Your task to perform on an android device: Open ESPN.com Image 0: 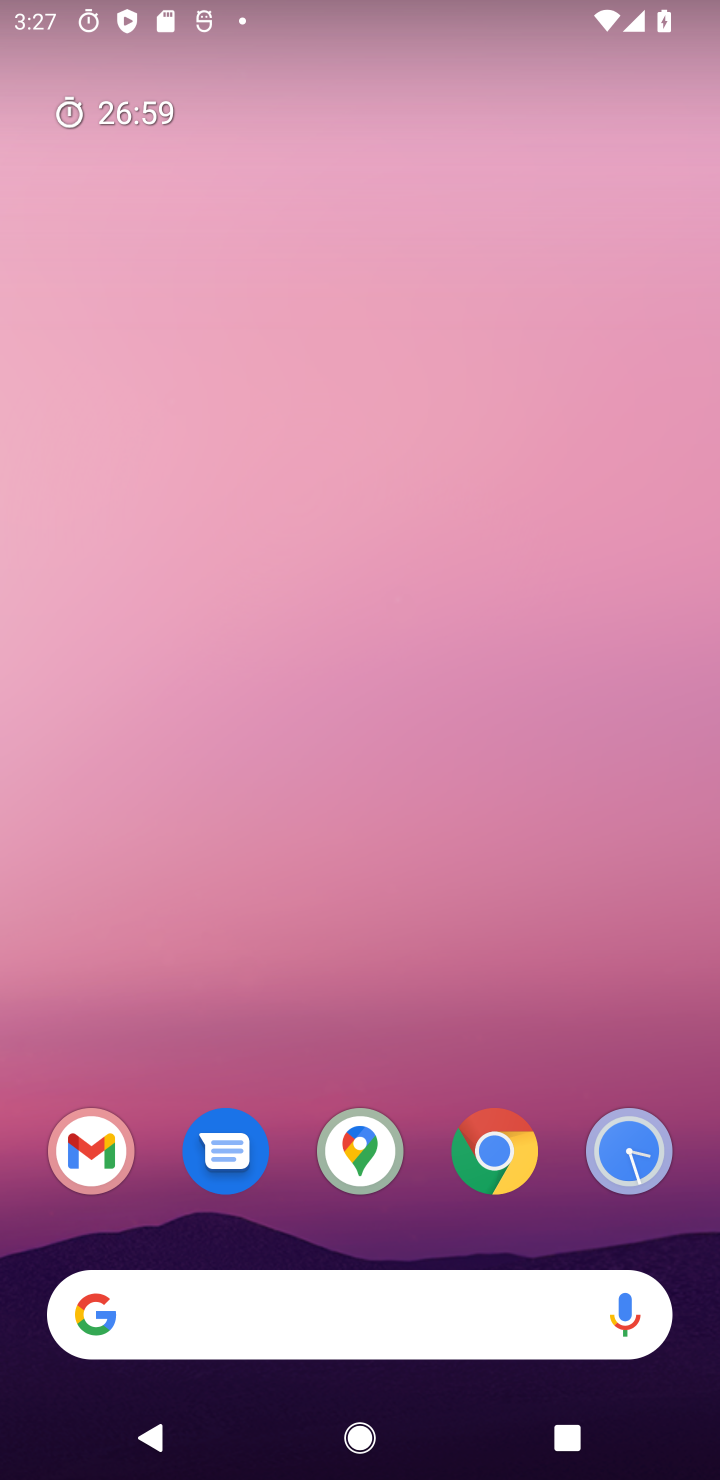
Step 0: click (470, 1146)
Your task to perform on an android device: Open ESPN.com Image 1: 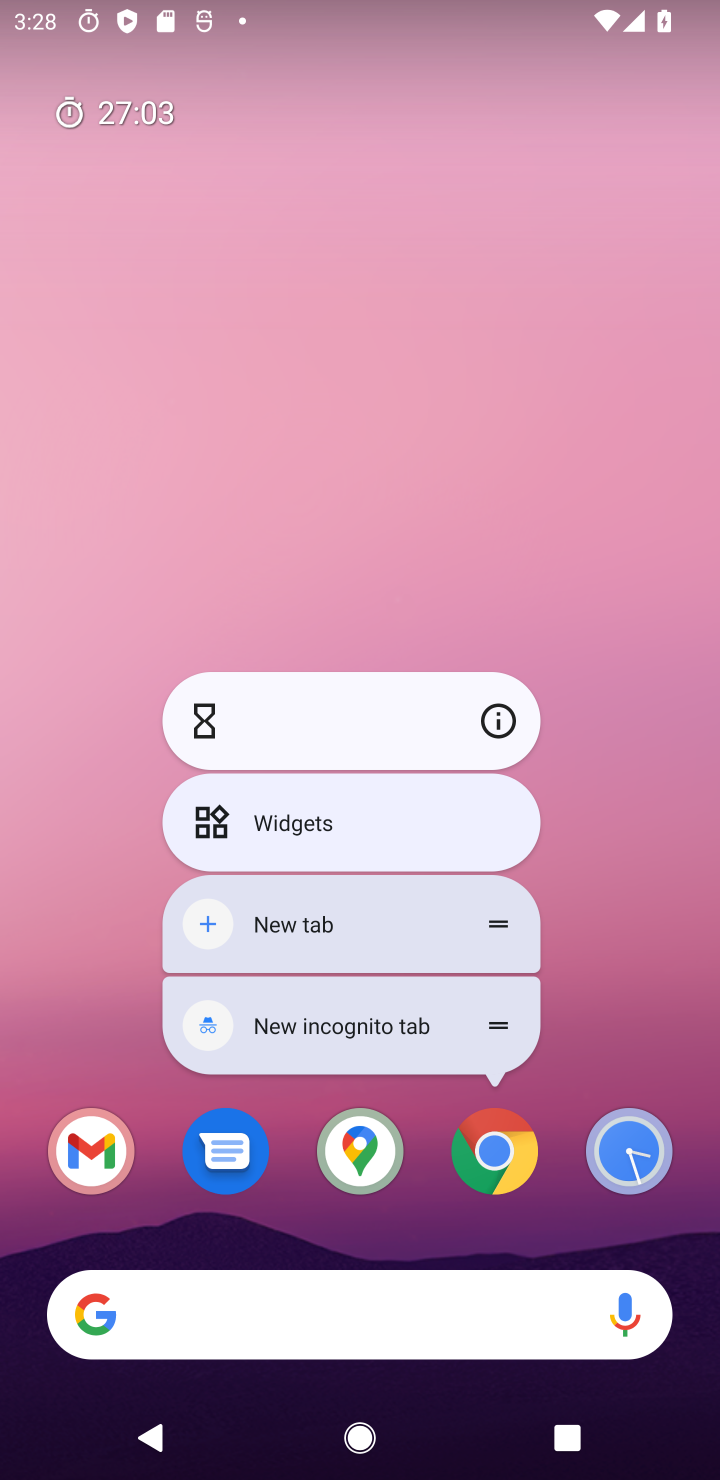
Step 1: click (485, 1170)
Your task to perform on an android device: Open ESPN.com Image 2: 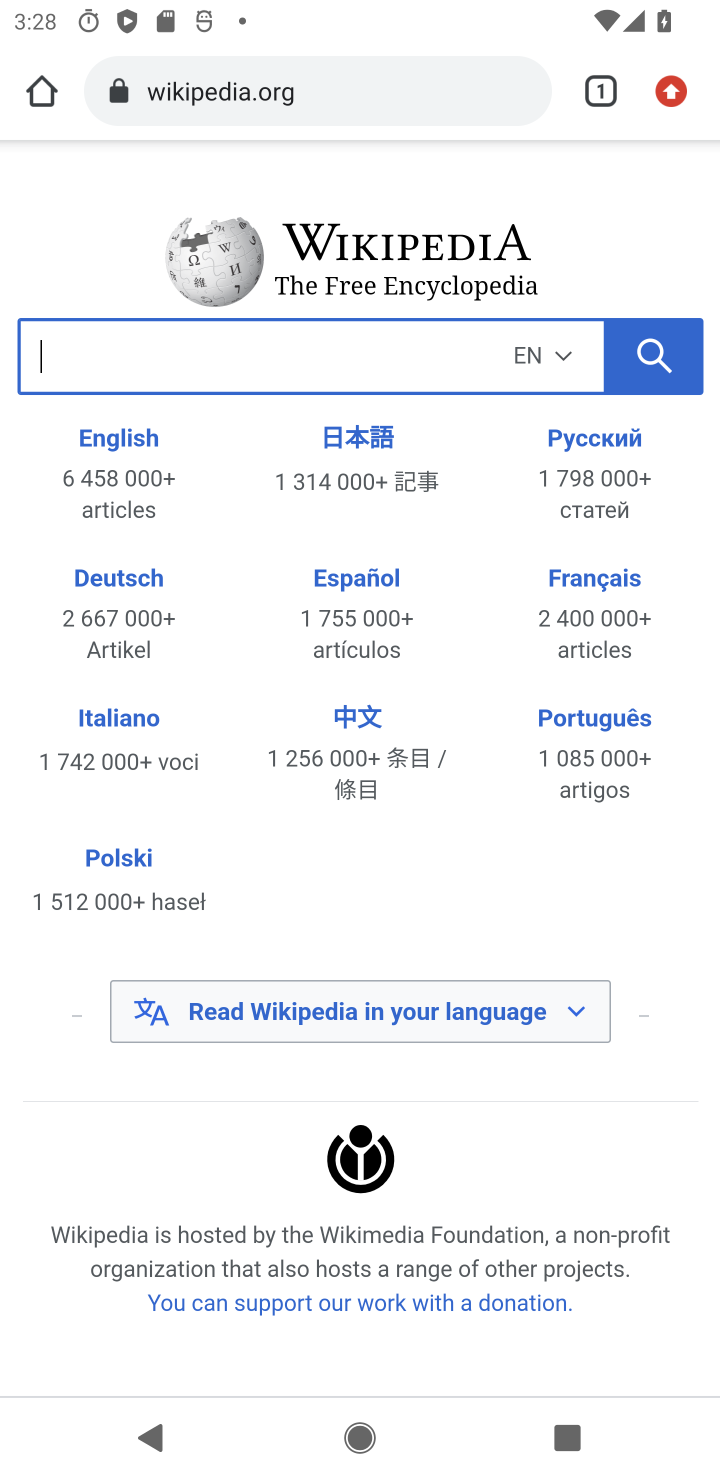
Step 2: click (256, 89)
Your task to perform on an android device: Open ESPN.com Image 3: 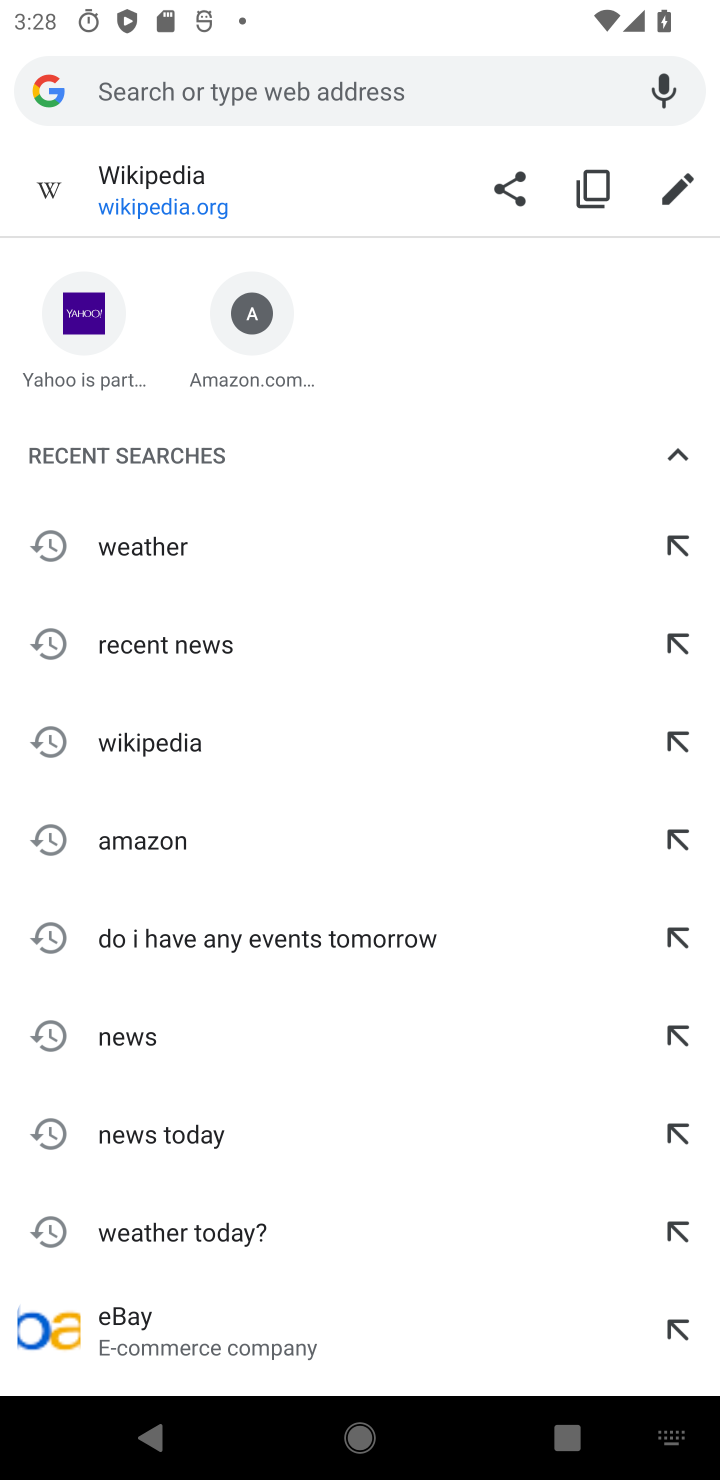
Step 3: type "ESPN.com"
Your task to perform on an android device: Open ESPN.com Image 4: 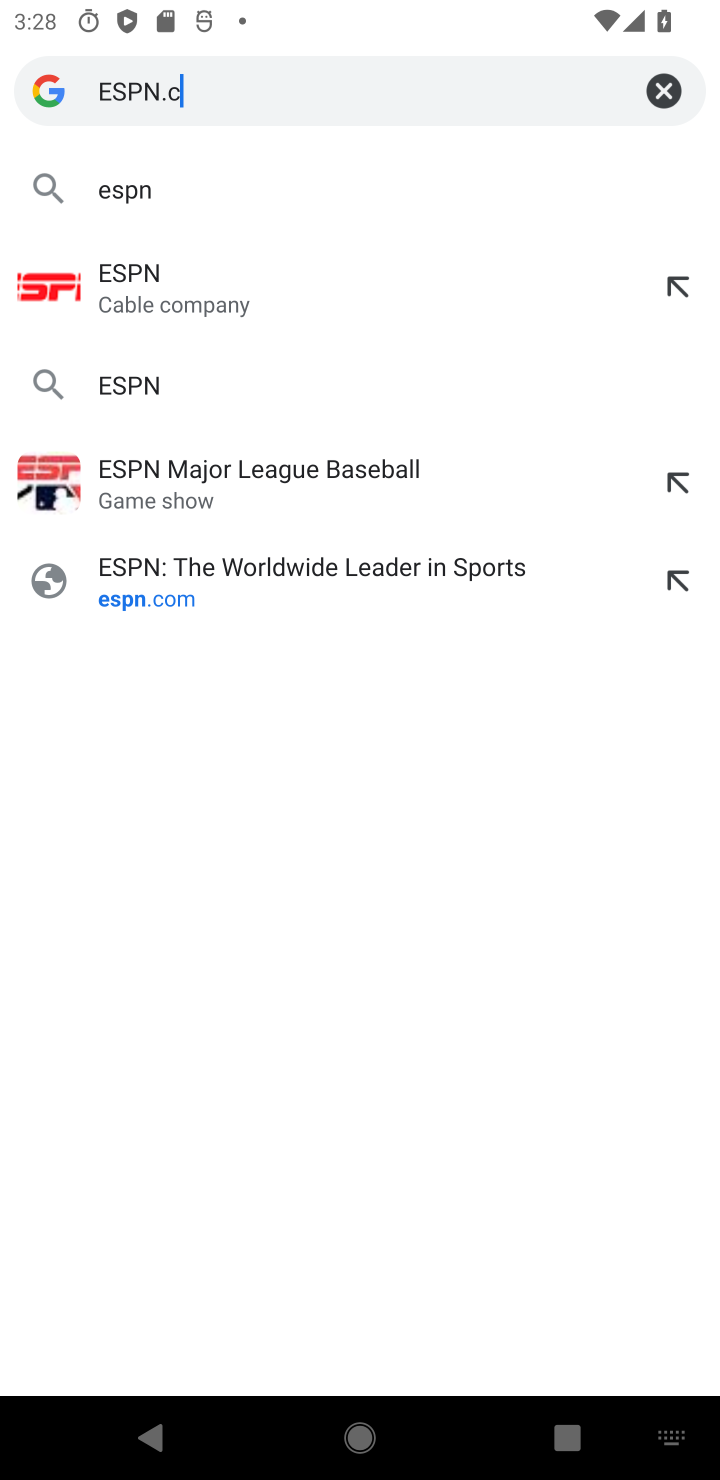
Step 4: type ""
Your task to perform on an android device: Open ESPN.com Image 5: 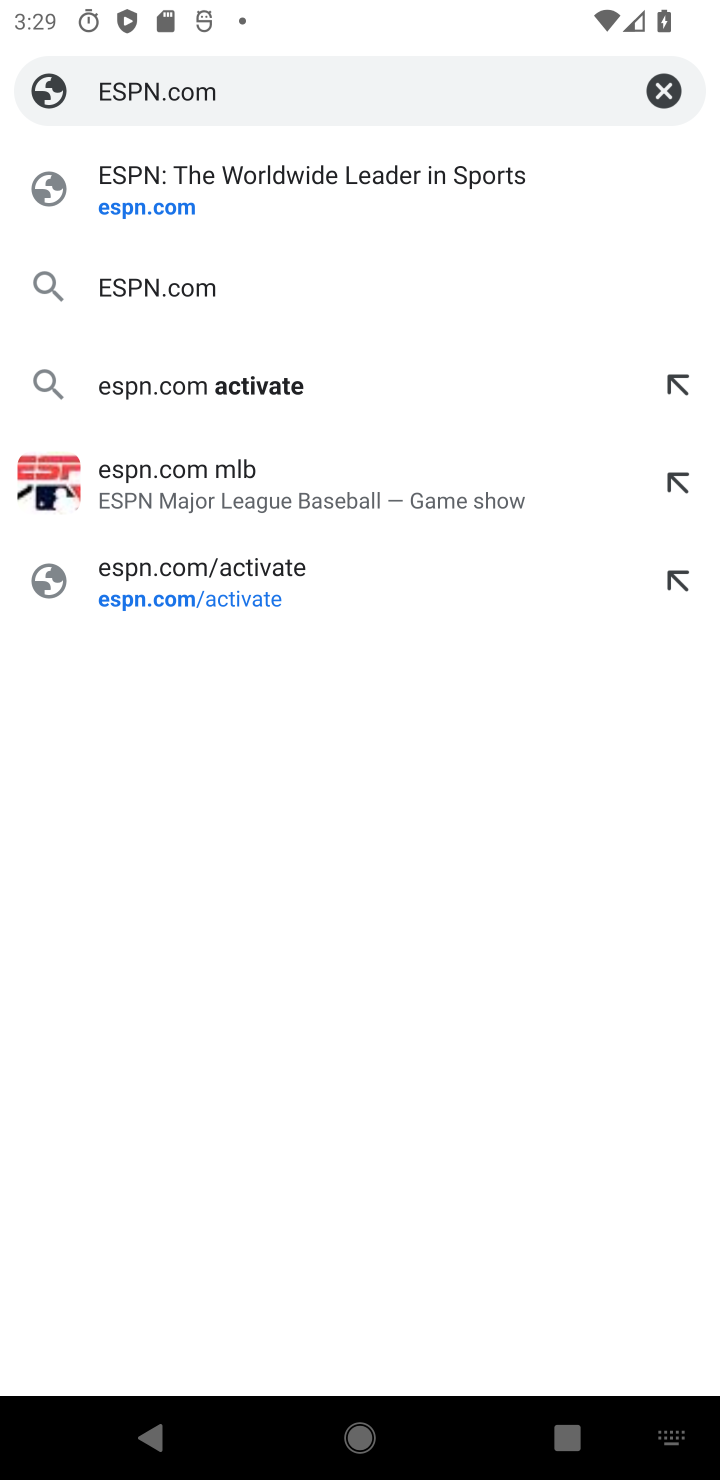
Step 5: click (257, 196)
Your task to perform on an android device: Open ESPN.com Image 6: 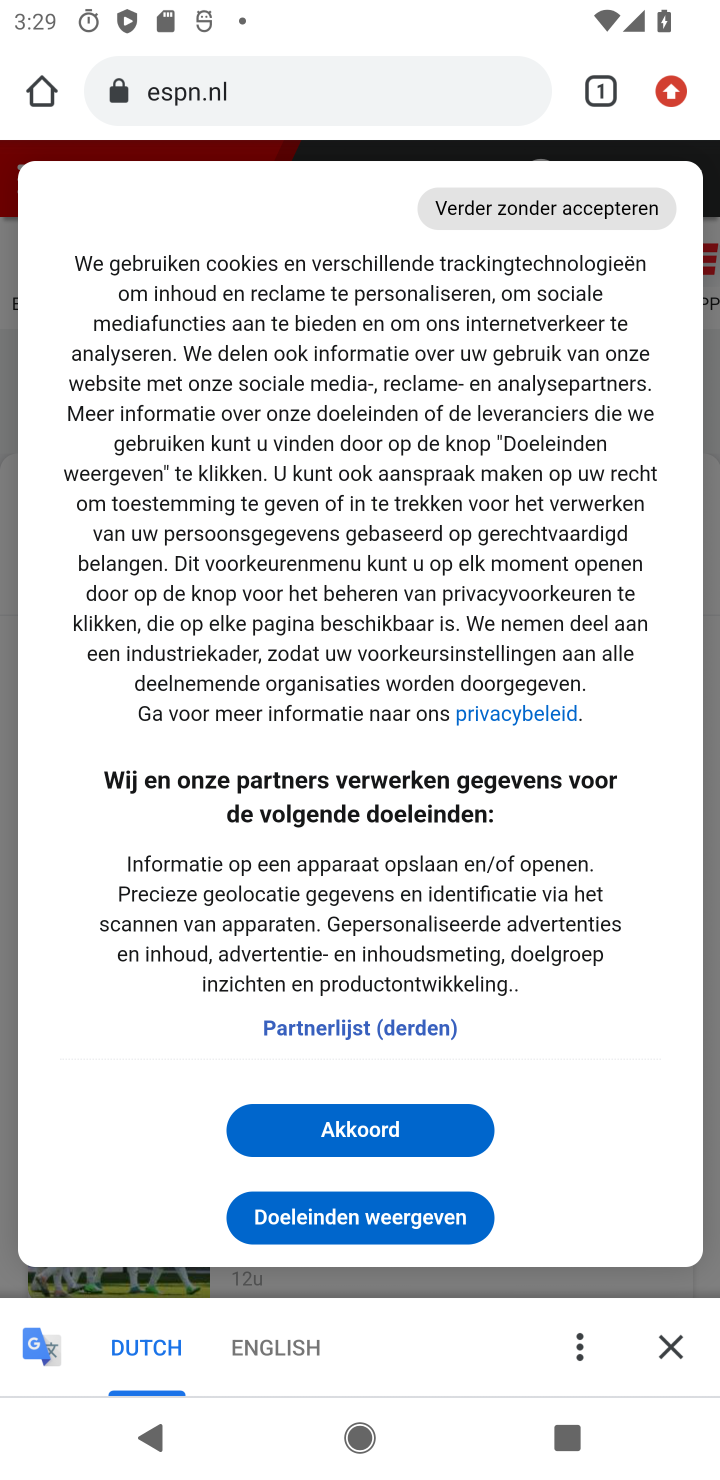
Step 6: click (323, 88)
Your task to perform on an android device: Open ESPN.com Image 7: 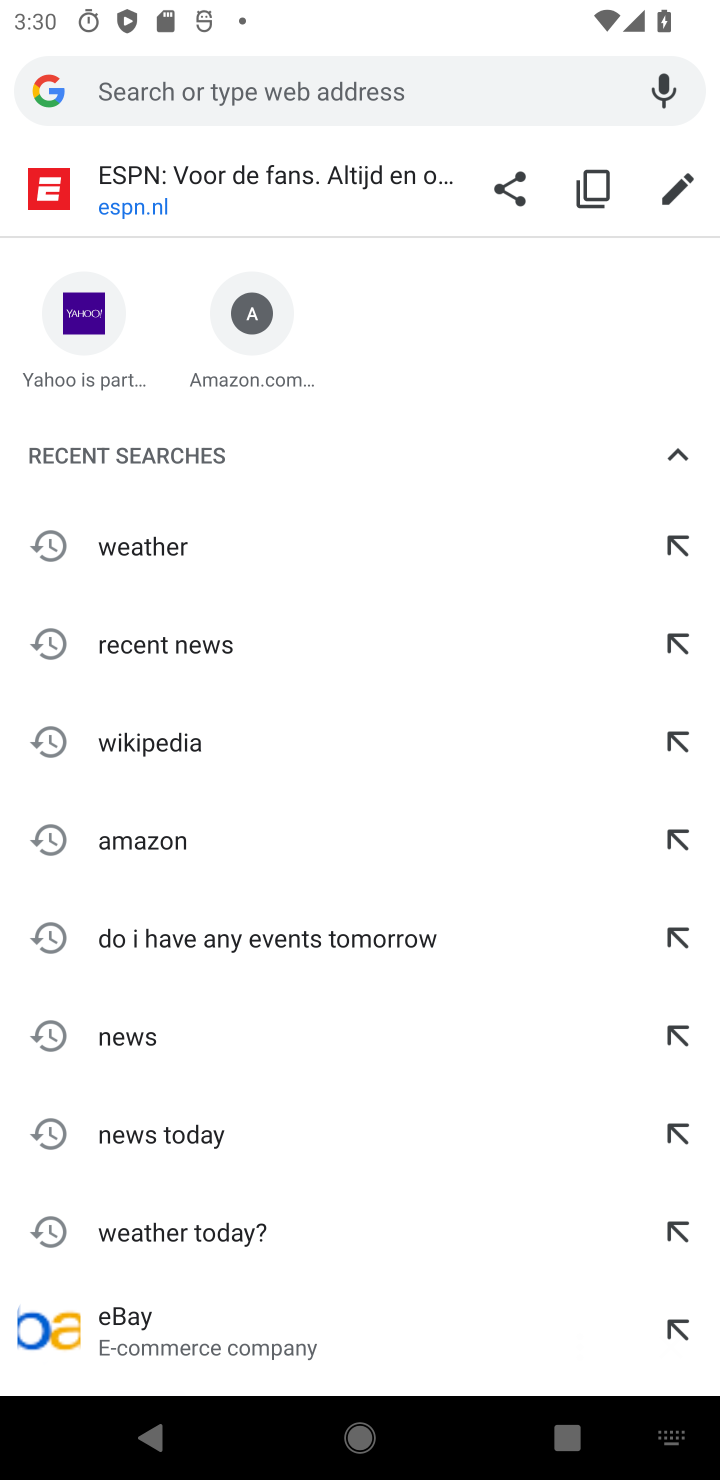
Step 7: type "ESPN.com"
Your task to perform on an android device: Open ESPN.com Image 8: 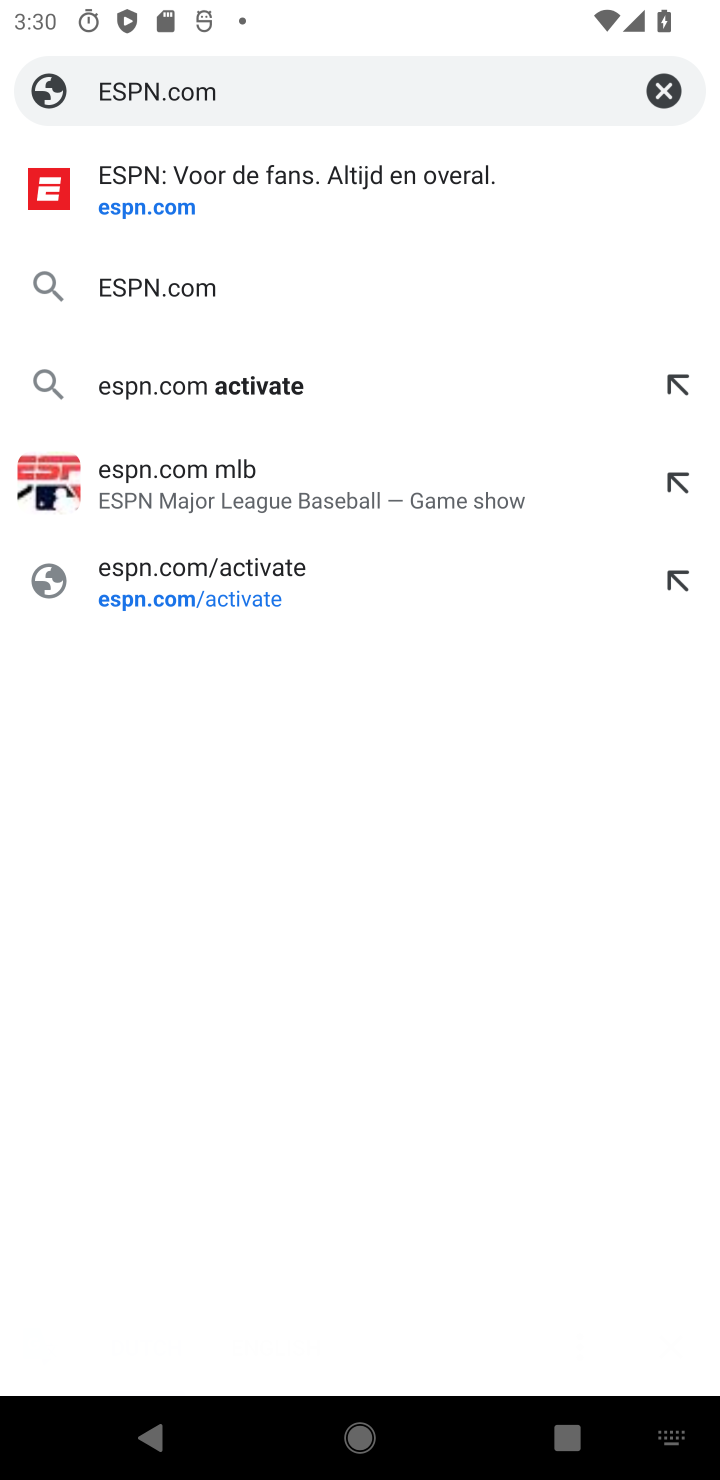
Step 8: click (210, 172)
Your task to perform on an android device: Open ESPN.com Image 9: 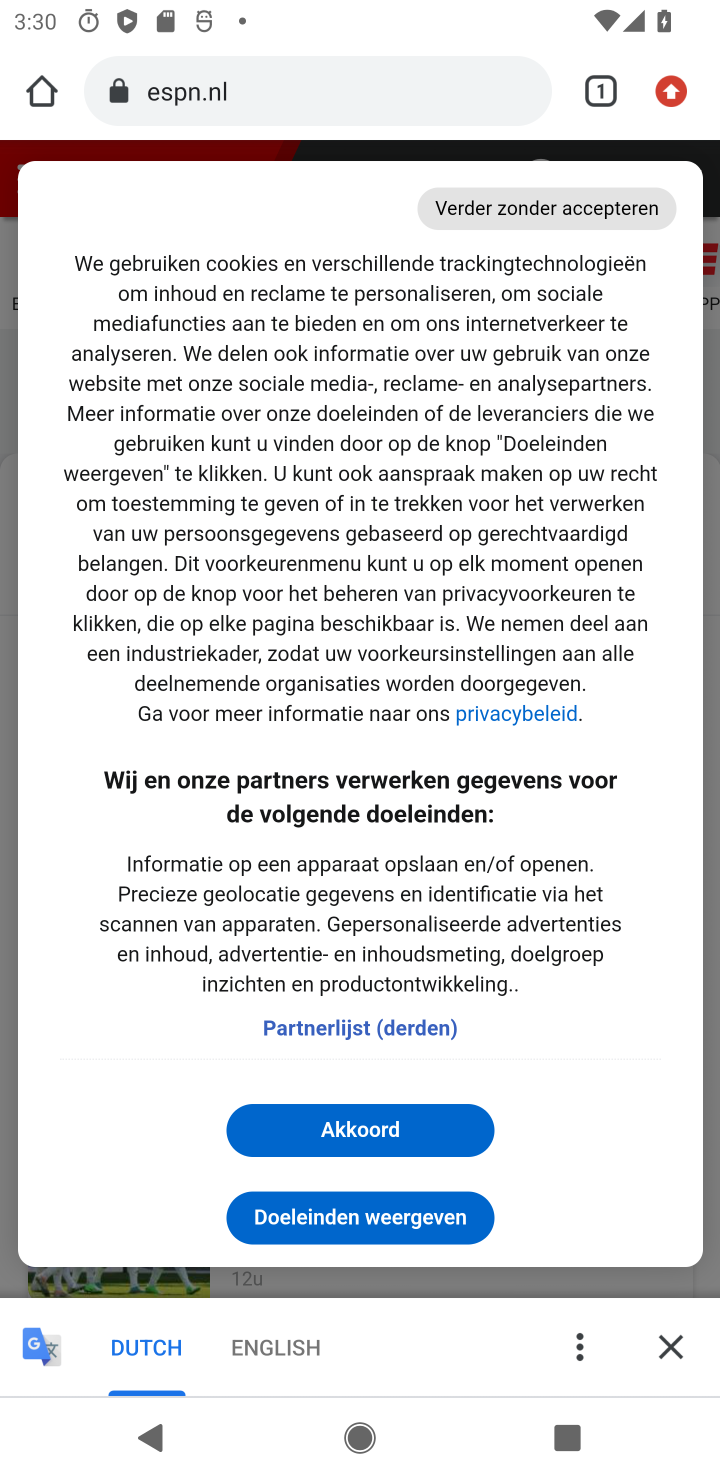
Step 9: task complete